Your task to perform on an android device: Open battery settings Image 0: 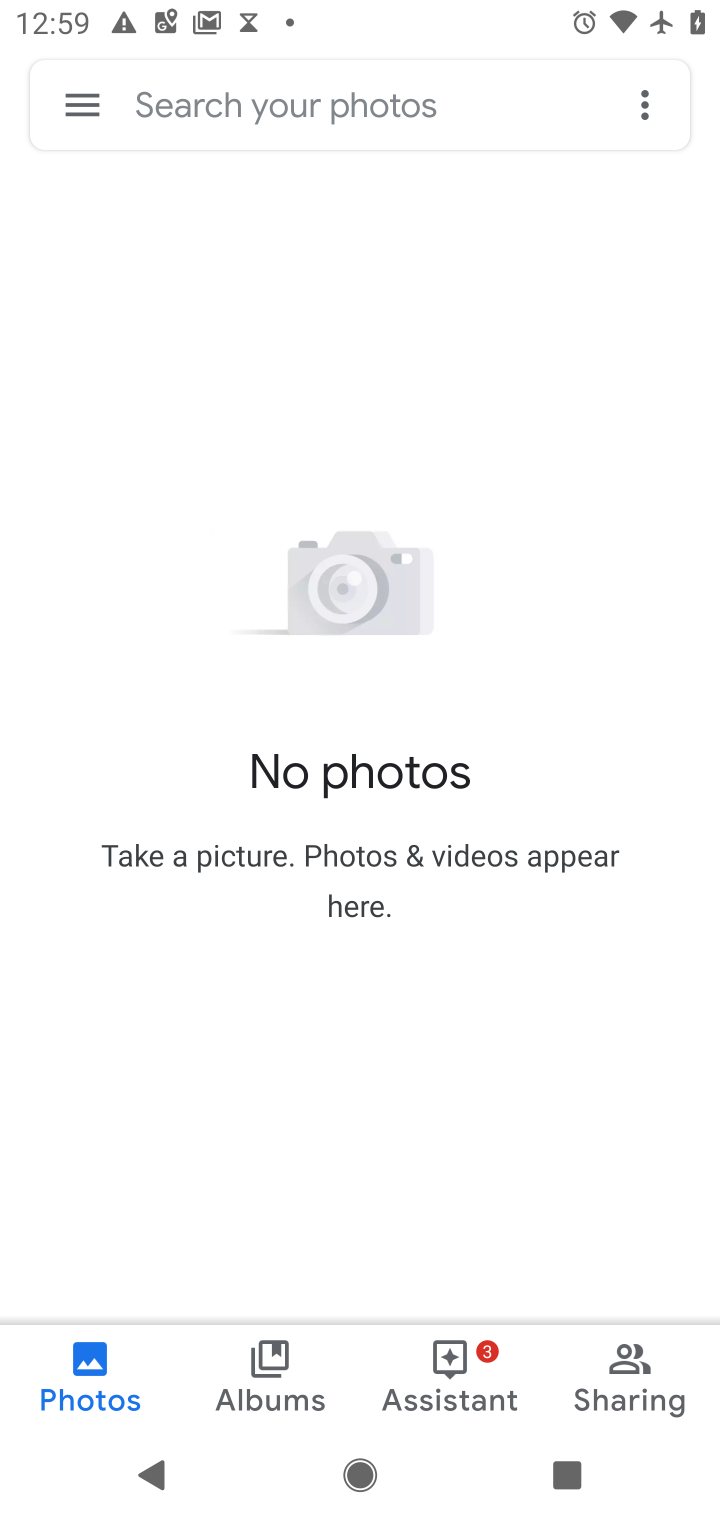
Step 0: press home button
Your task to perform on an android device: Open battery settings Image 1: 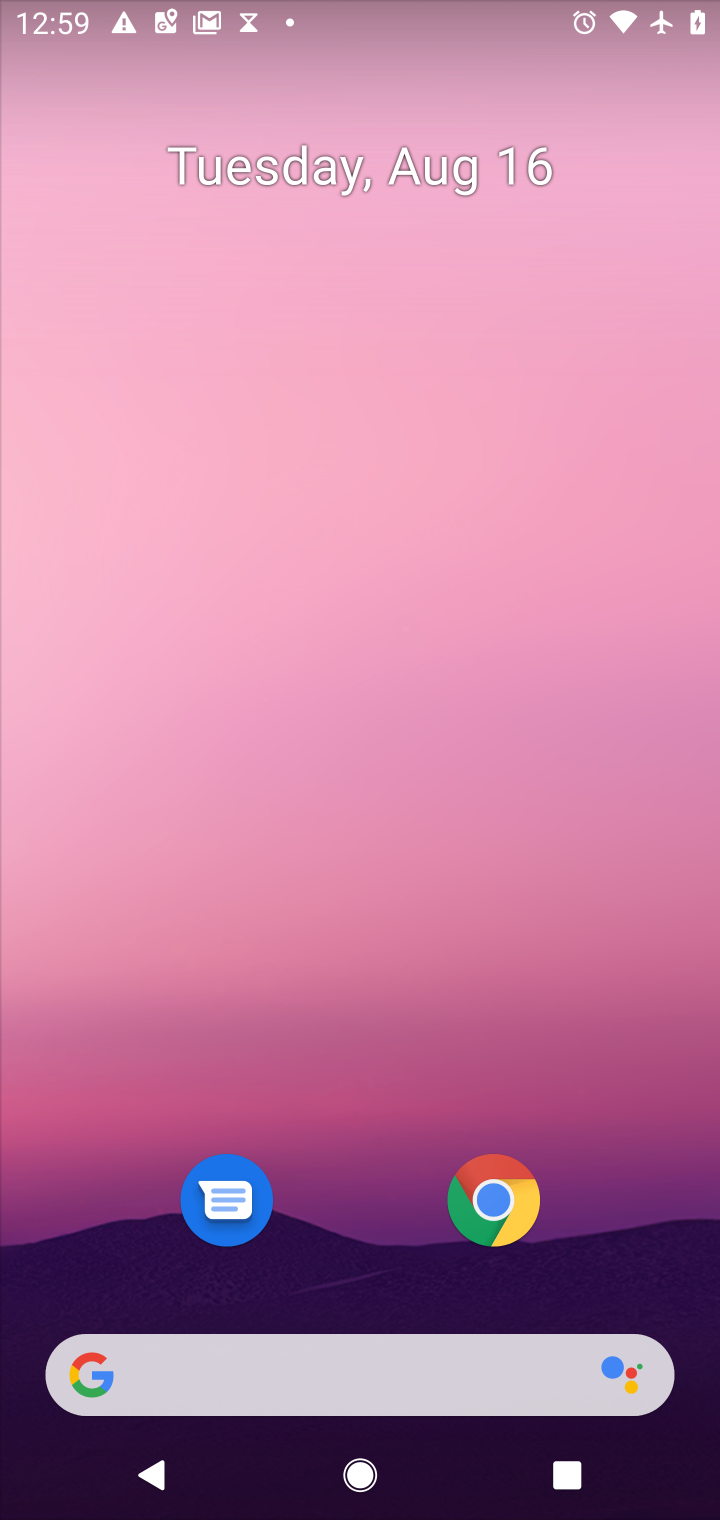
Step 1: drag from (328, 1022) to (309, 224)
Your task to perform on an android device: Open battery settings Image 2: 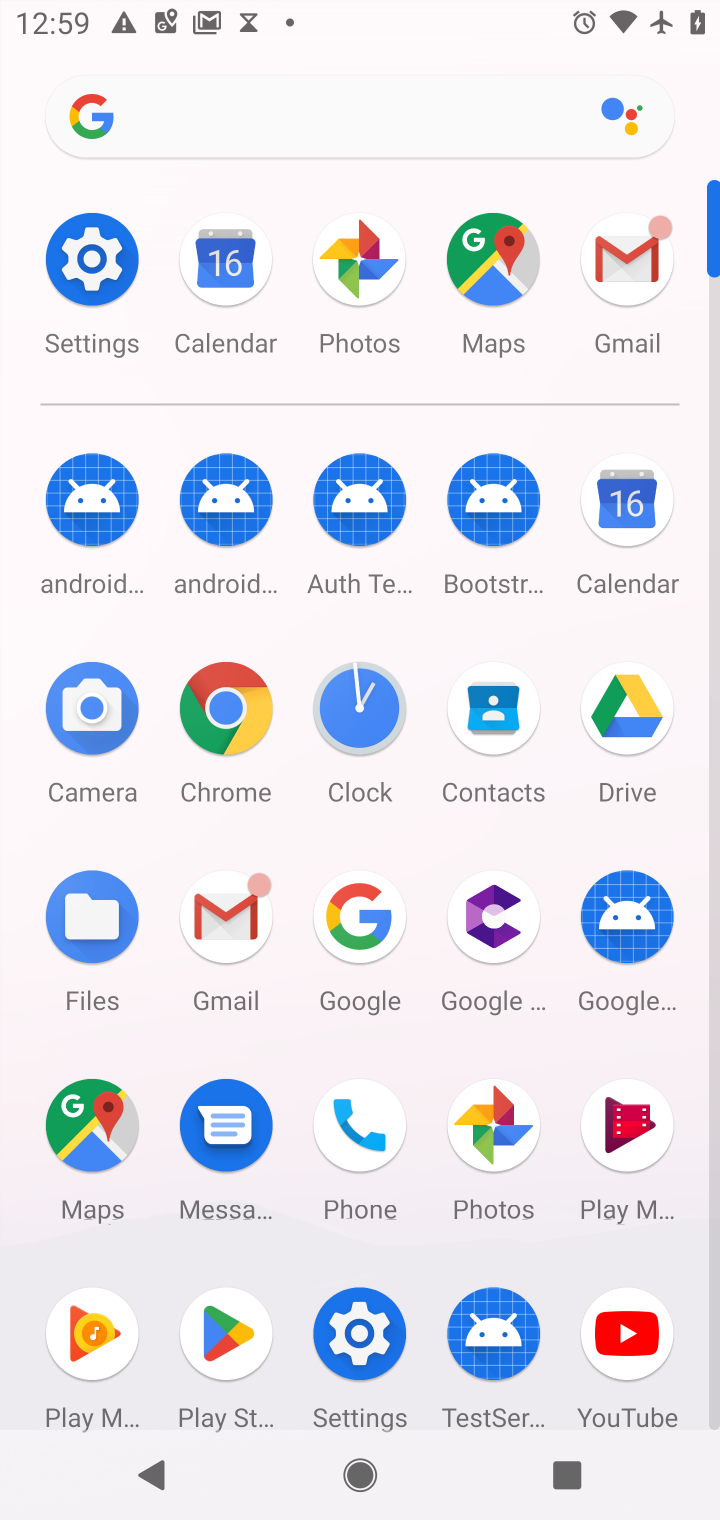
Step 2: click (96, 264)
Your task to perform on an android device: Open battery settings Image 3: 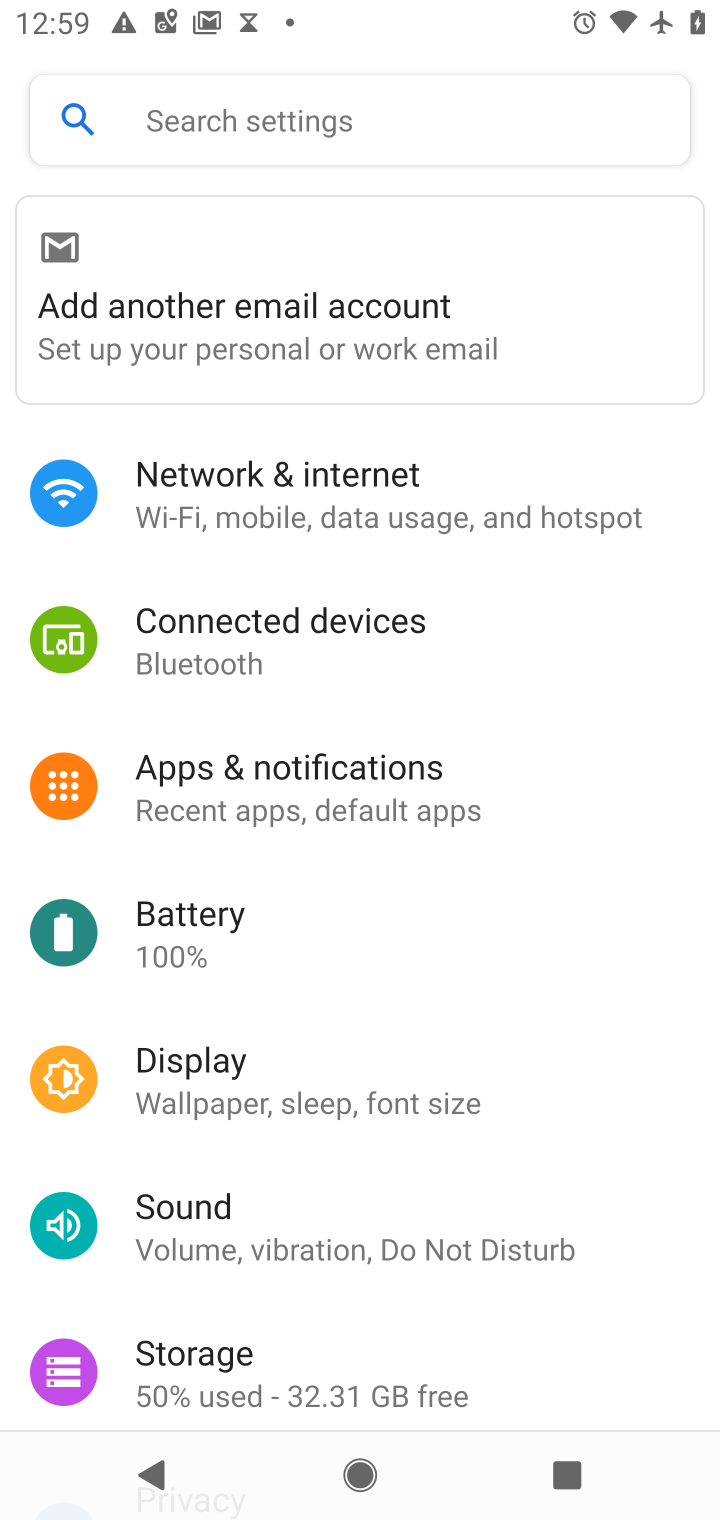
Step 3: click (282, 938)
Your task to perform on an android device: Open battery settings Image 4: 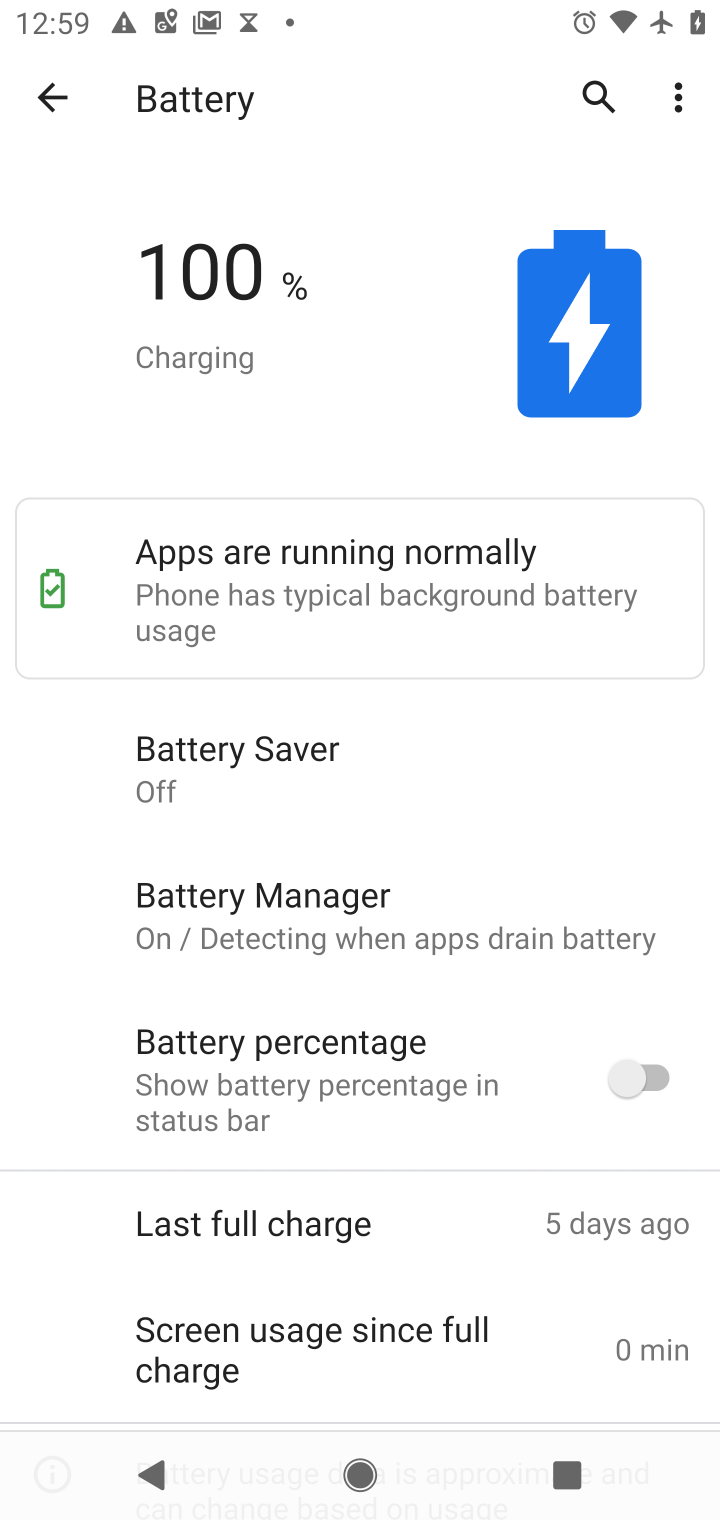
Step 4: task complete